Your task to perform on an android device: open app "Microsoft Authenticator" (install if not already installed) and go to login screen Image 0: 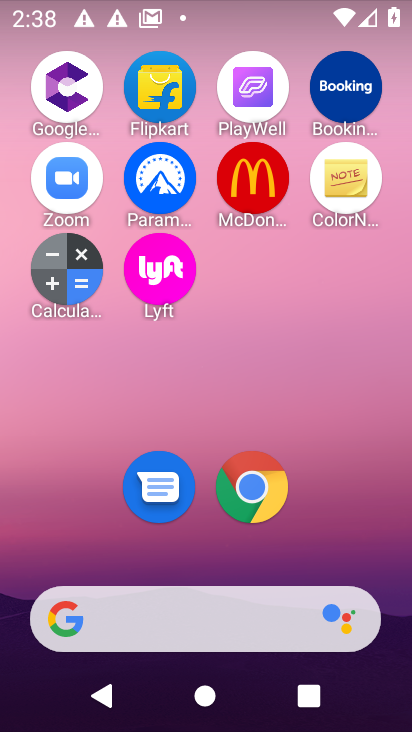
Step 0: drag from (192, 617) to (202, 8)
Your task to perform on an android device: open app "Microsoft Authenticator" (install if not already installed) and go to login screen Image 1: 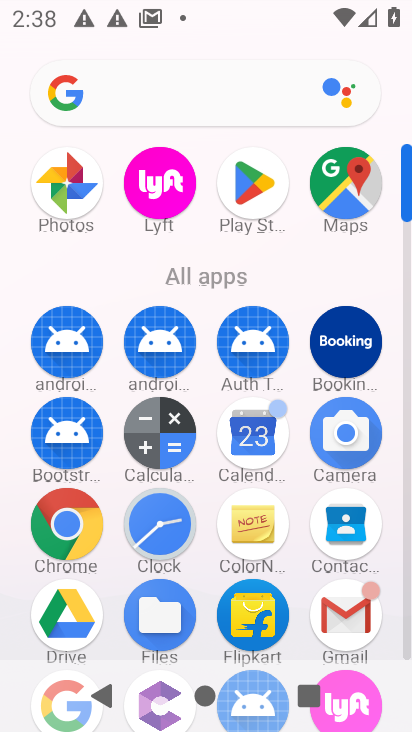
Step 1: click (254, 194)
Your task to perform on an android device: open app "Microsoft Authenticator" (install if not already installed) and go to login screen Image 2: 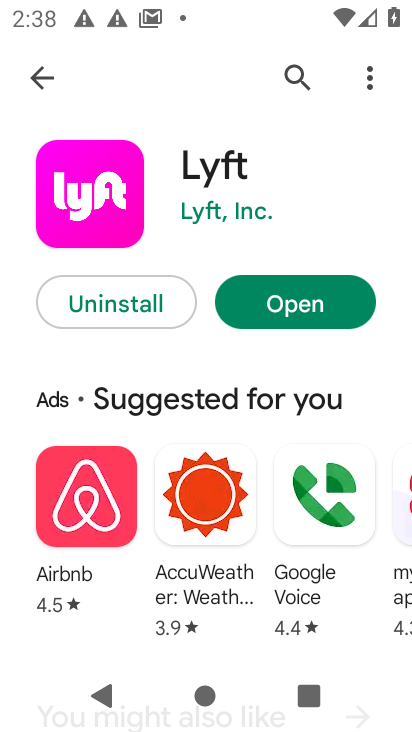
Step 2: press back button
Your task to perform on an android device: open app "Microsoft Authenticator" (install if not already installed) and go to login screen Image 3: 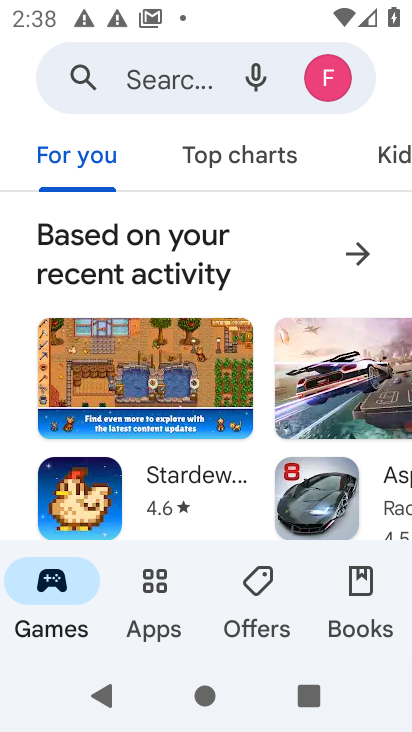
Step 3: click (158, 88)
Your task to perform on an android device: open app "Microsoft Authenticator" (install if not already installed) and go to login screen Image 4: 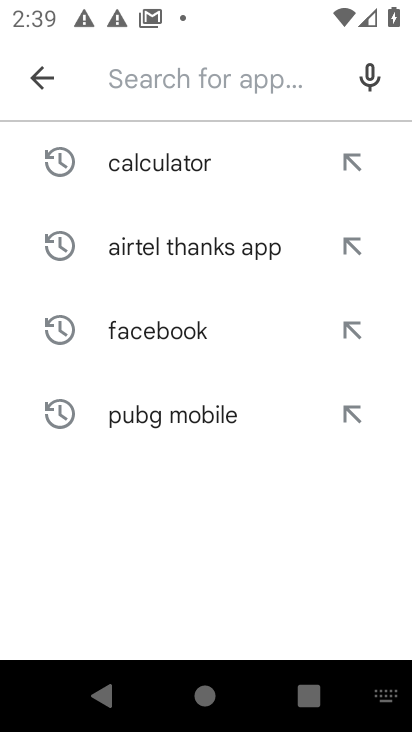
Step 4: type "Microsoft Authenticator"
Your task to perform on an android device: open app "Microsoft Authenticator" (install if not already installed) and go to login screen Image 5: 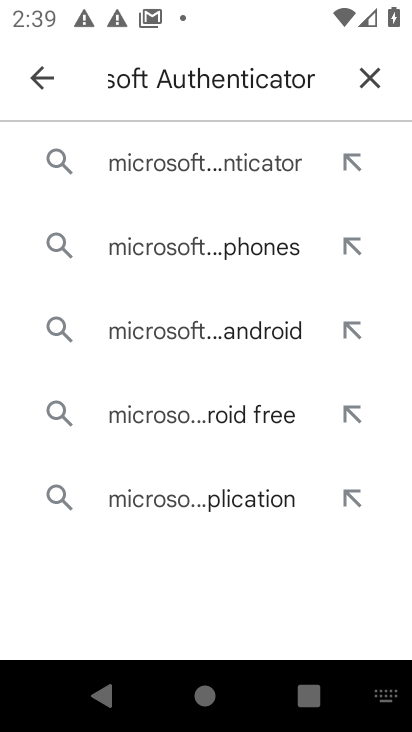
Step 5: click (179, 171)
Your task to perform on an android device: open app "Microsoft Authenticator" (install if not already installed) and go to login screen Image 6: 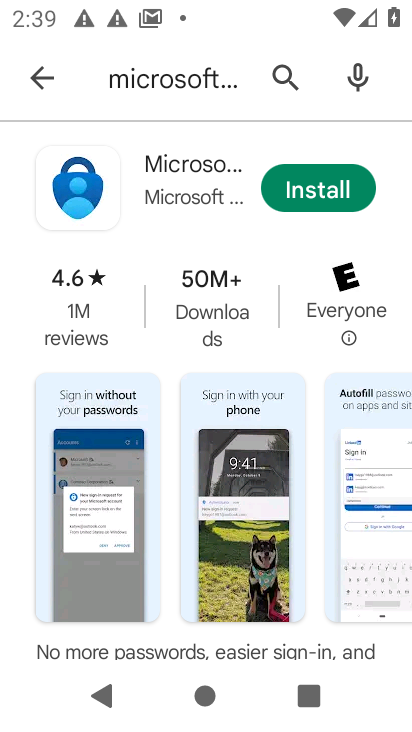
Step 6: click (322, 202)
Your task to perform on an android device: open app "Microsoft Authenticator" (install if not already installed) and go to login screen Image 7: 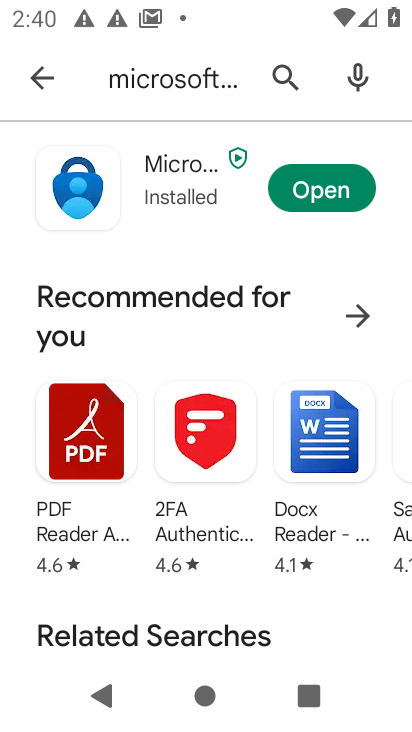
Step 7: click (322, 202)
Your task to perform on an android device: open app "Microsoft Authenticator" (install if not already installed) and go to login screen Image 8: 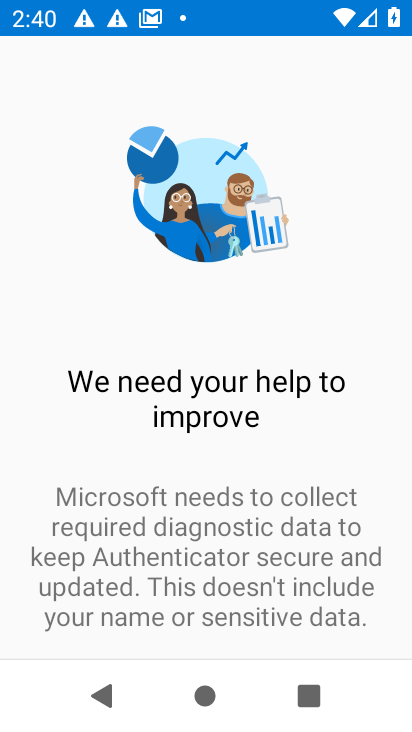
Step 8: drag from (229, 508) to (288, 280)
Your task to perform on an android device: open app "Microsoft Authenticator" (install if not already installed) and go to login screen Image 9: 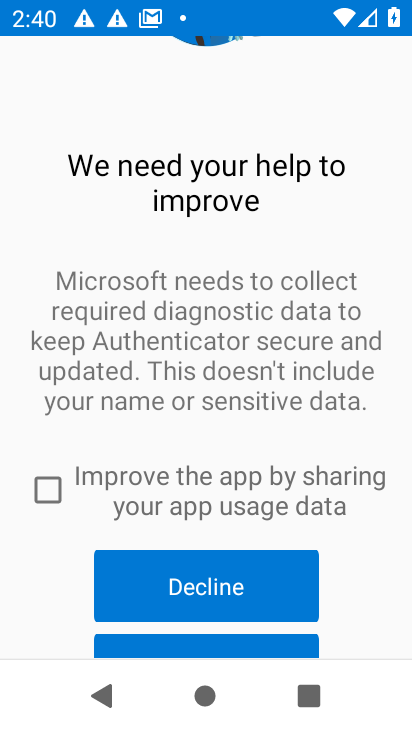
Step 9: drag from (127, 522) to (267, 307)
Your task to perform on an android device: open app "Microsoft Authenticator" (install if not already installed) and go to login screen Image 10: 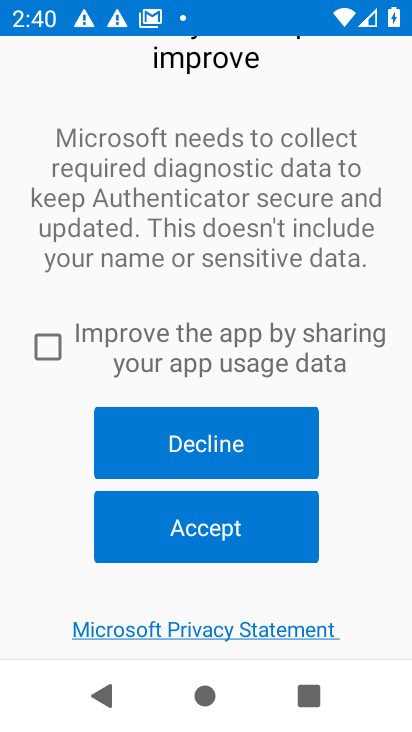
Step 10: click (208, 524)
Your task to perform on an android device: open app "Microsoft Authenticator" (install if not already installed) and go to login screen Image 11: 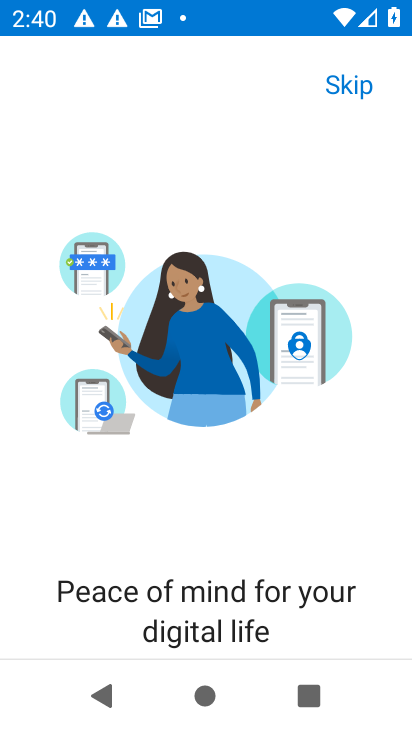
Step 11: drag from (233, 552) to (326, 162)
Your task to perform on an android device: open app "Microsoft Authenticator" (install if not already installed) and go to login screen Image 12: 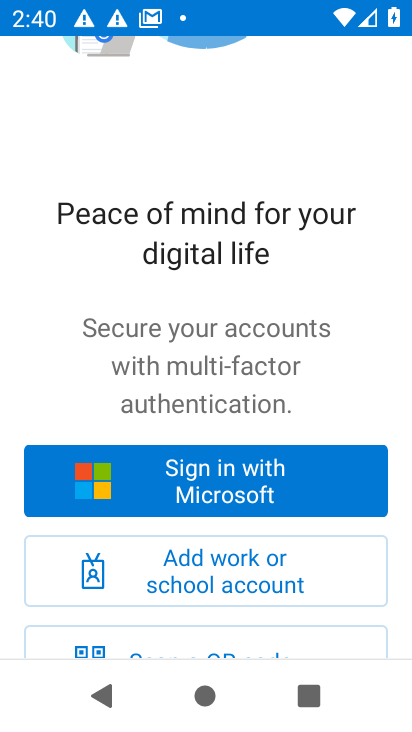
Step 12: click (254, 497)
Your task to perform on an android device: open app "Microsoft Authenticator" (install if not already installed) and go to login screen Image 13: 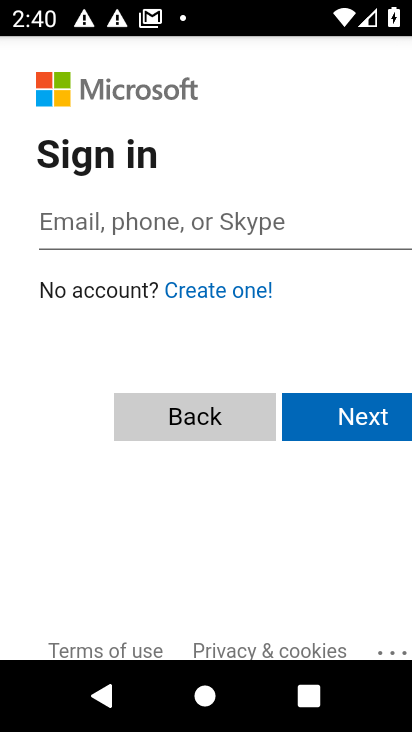
Step 13: task complete